Your task to perform on an android device: remove spam from my inbox in the gmail app Image 0: 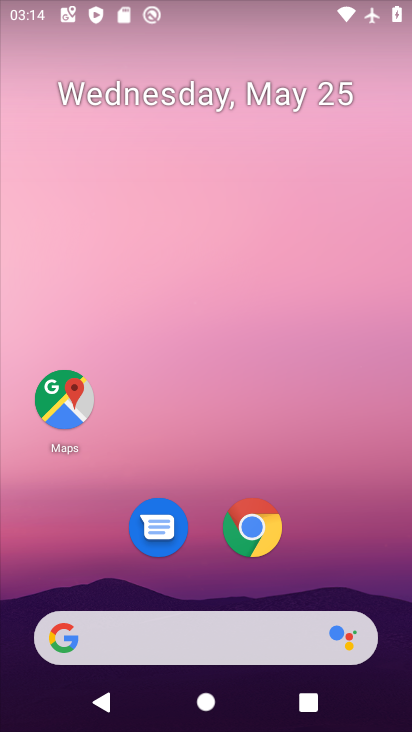
Step 0: drag from (177, 593) to (230, 238)
Your task to perform on an android device: remove spam from my inbox in the gmail app Image 1: 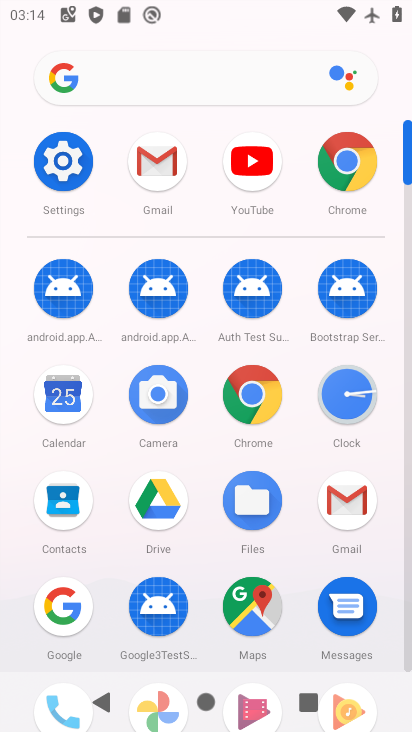
Step 1: click (346, 498)
Your task to perform on an android device: remove spam from my inbox in the gmail app Image 2: 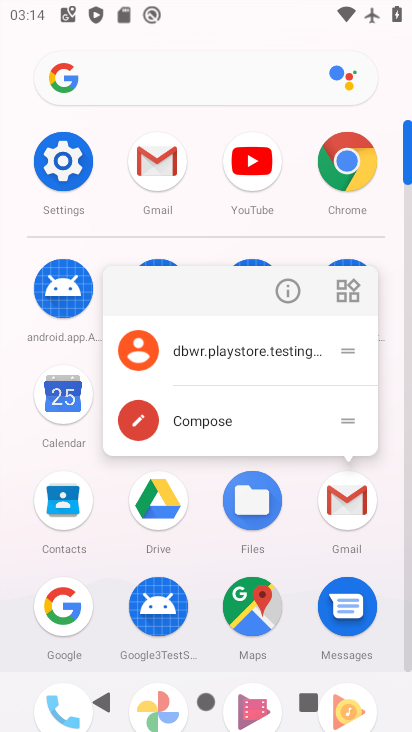
Step 2: click (216, 347)
Your task to perform on an android device: remove spam from my inbox in the gmail app Image 3: 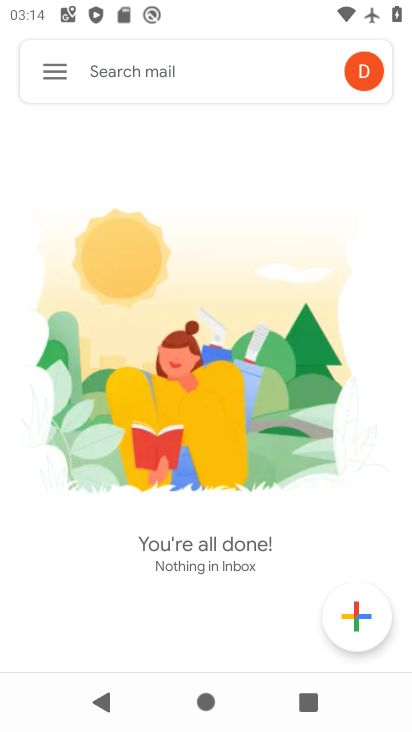
Step 3: click (48, 63)
Your task to perform on an android device: remove spam from my inbox in the gmail app Image 4: 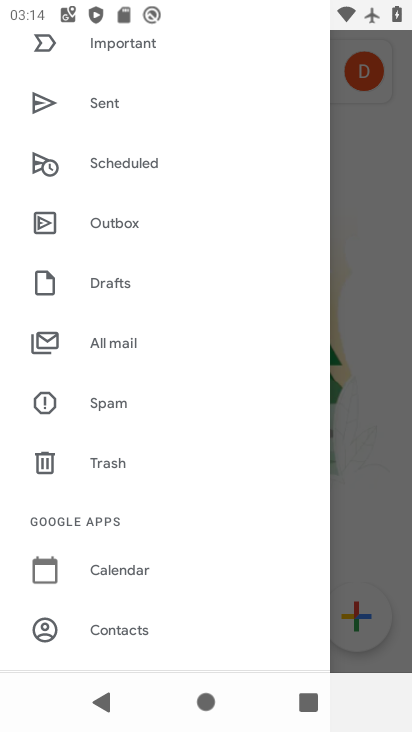
Step 4: click (118, 392)
Your task to perform on an android device: remove spam from my inbox in the gmail app Image 5: 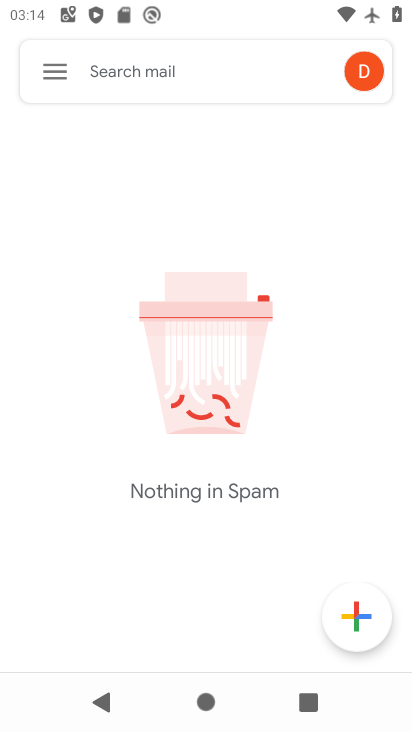
Step 5: click (245, 64)
Your task to perform on an android device: remove spam from my inbox in the gmail app Image 6: 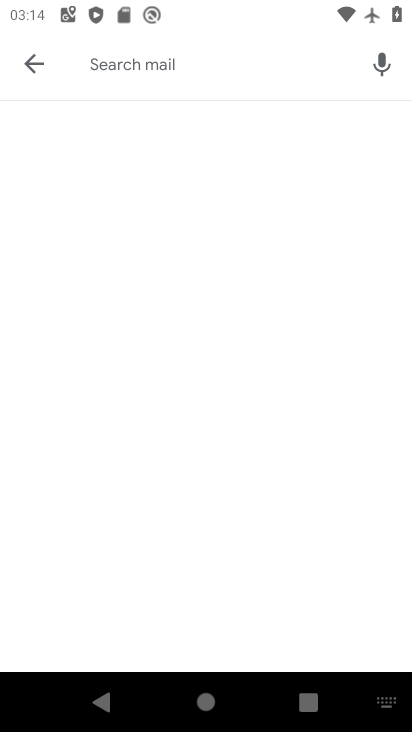
Step 6: click (34, 72)
Your task to perform on an android device: remove spam from my inbox in the gmail app Image 7: 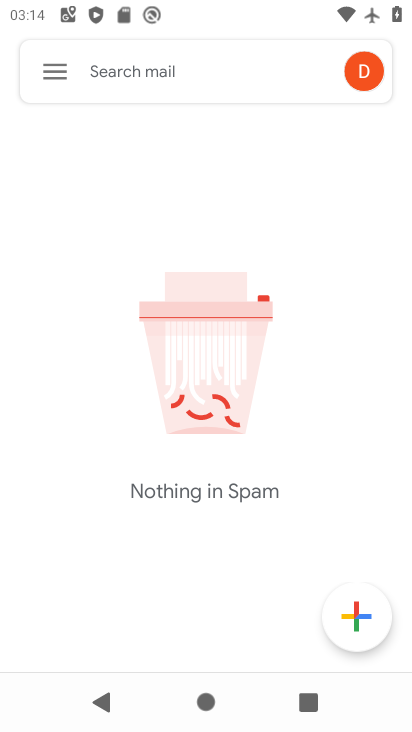
Step 7: click (63, 59)
Your task to perform on an android device: remove spam from my inbox in the gmail app Image 8: 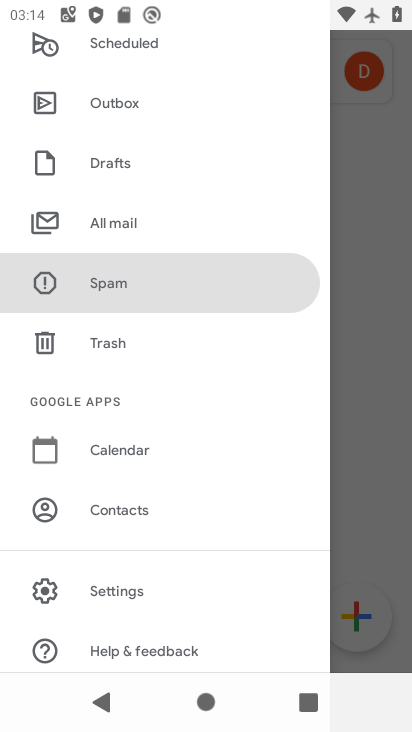
Step 8: click (128, 275)
Your task to perform on an android device: remove spam from my inbox in the gmail app Image 9: 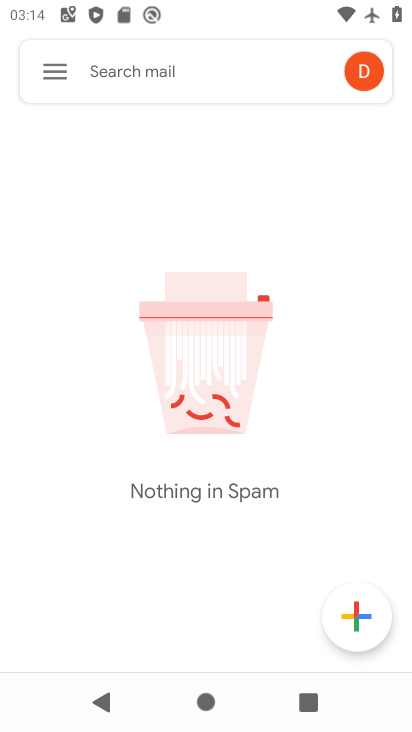
Step 9: task complete